Your task to perform on an android device: toggle translation in the chrome app Image 0: 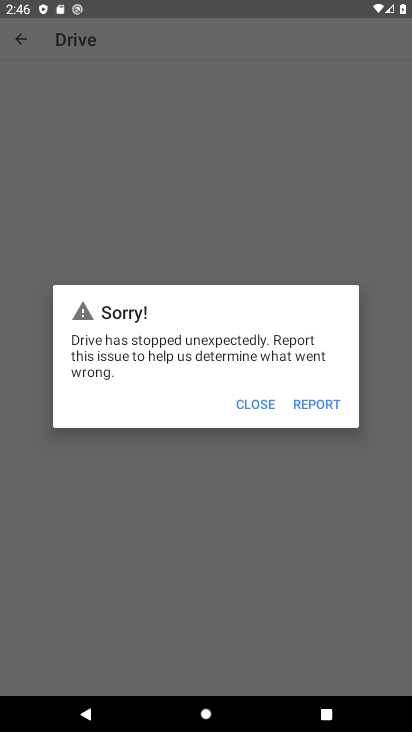
Step 0: press home button
Your task to perform on an android device: toggle translation in the chrome app Image 1: 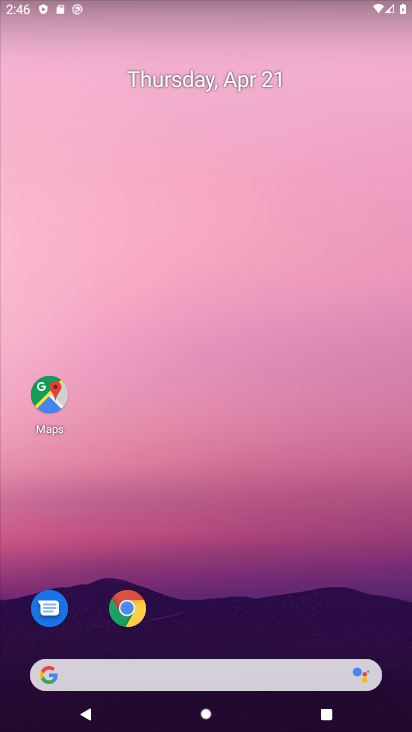
Step 1: drag from (346, 557) to (327, 176)
Your task to perform on an android device: toggle translation in the chrome app Image 2: 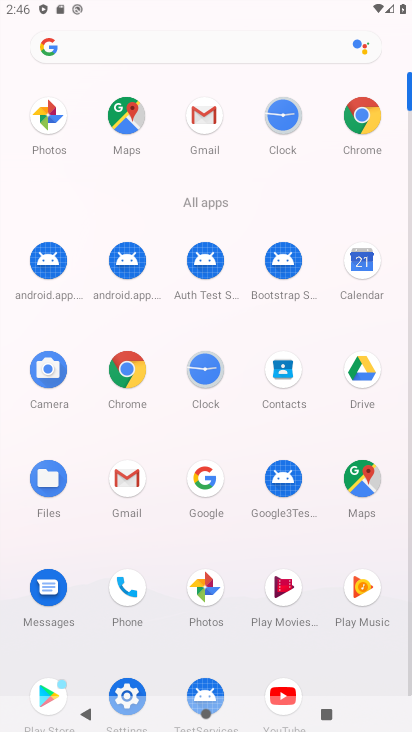
Step 2: click (367, 133)
Your task to perform on an android device: toggle translation in the chrome app Image 3: 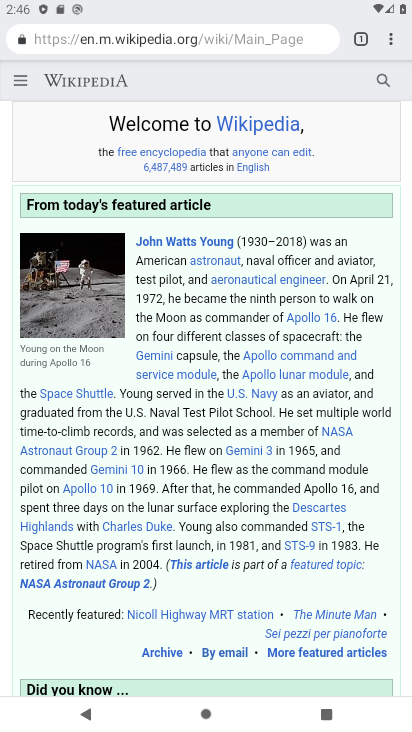
Step 3: drag from (392, 40) to (297, 463)
Your task to perform on an android device: toggle translation in the chrome app Image 4: 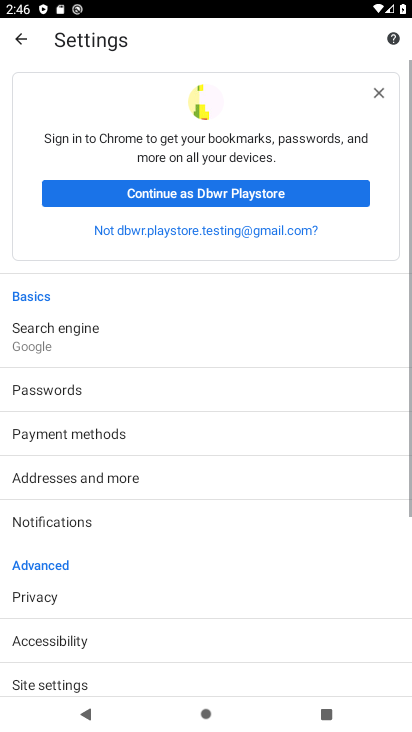
Step 4: drag from (277, 569) to (346, 212)
Your task to perform on an android device: toggle translation in the chrome app Image 5: 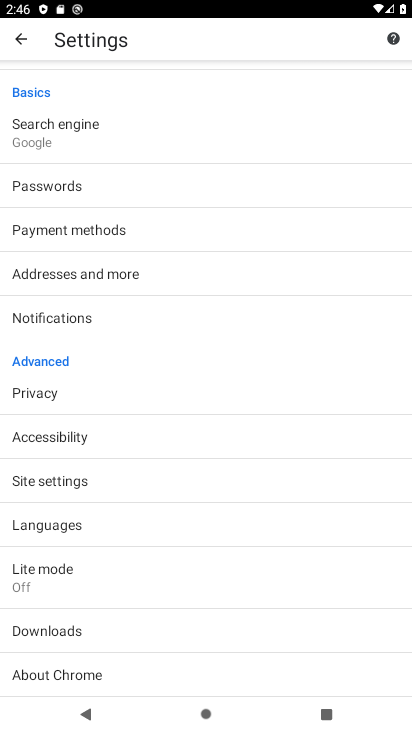
Step 5: click (79, 529)
Your task to perform on an android device: toggle translation in the chrome app Image 6: 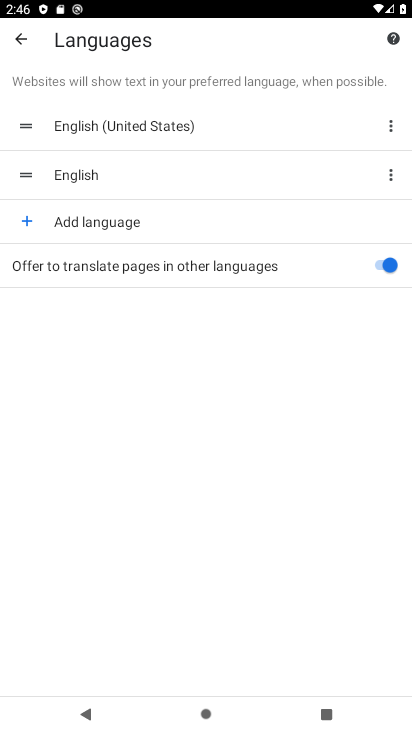
Step 6: click (378, 262)
Your task to perform on an android device: toggle translation in the chrome app Image 7: 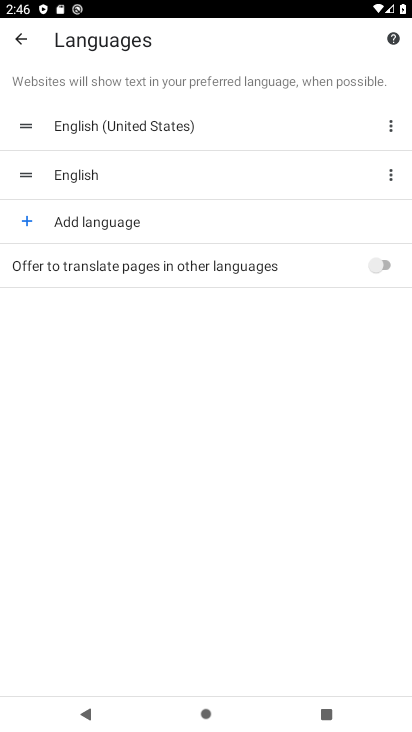
Step 7: task complete